Your task to perform on an android device: turn off javascript in the chrome app Image 0: 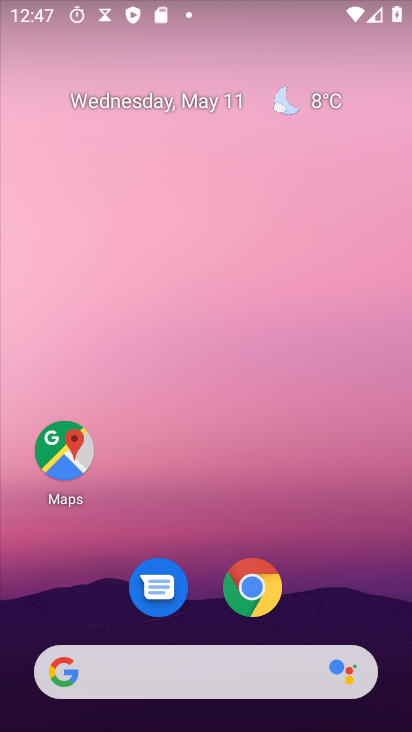
Step 0: drag from (341, 619) to (233, 202)
Your task to perform on an android device: turn off javascript in the chrome app Image 1: 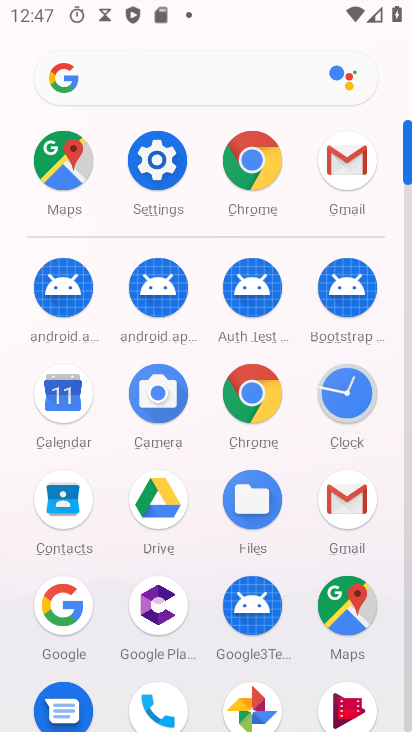
Step 1: click (243, 151)
Your task to perform on an android device: turn off javascript in the chrome app Image 2: 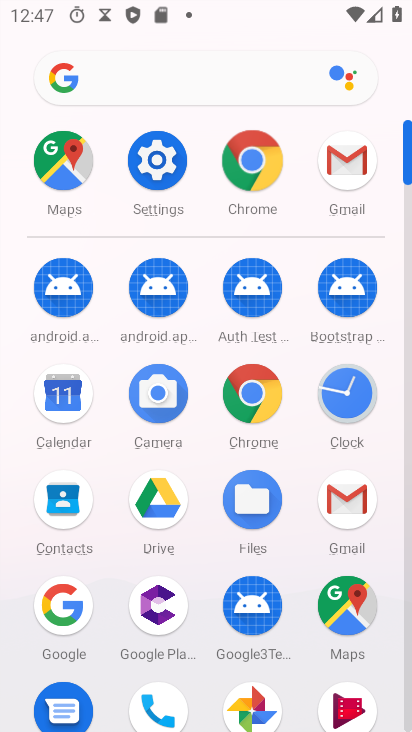
Step 2: click (243, 151)
Your task to perform on an android device: turn off javascript in the chrome app Image 3: 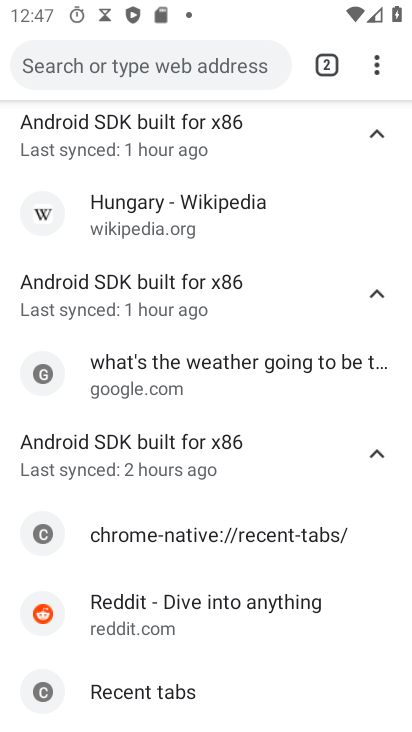
Step 3: drag from (366, 59) to (134, 546)
Your task to perform on an android device: turn off javascript in the chrome app Image 4: 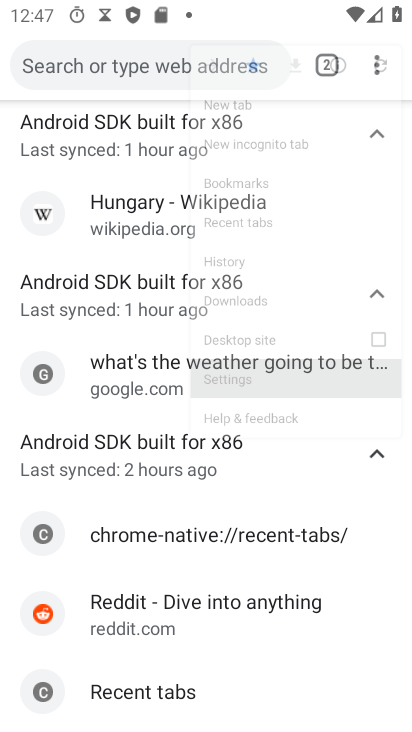
Step 4: click (134, 546)
Your task to perform on an android device: turn off javascript in the chrome app Image 5: 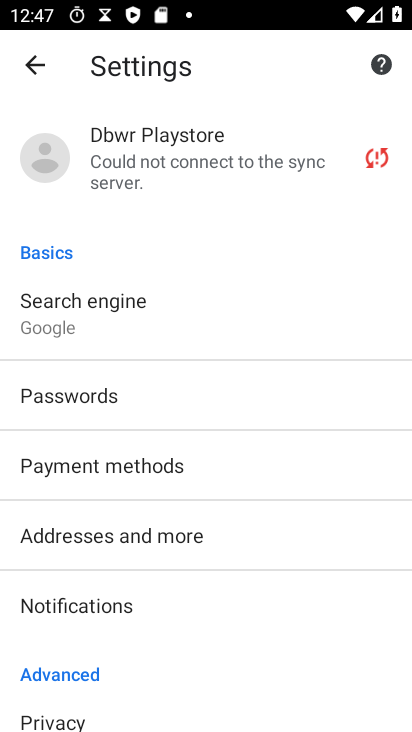
Step 5: drag from (187, 506) to (163, 254)
Your task to perform on an android device: turn off javascript in the chrome app Image 6: 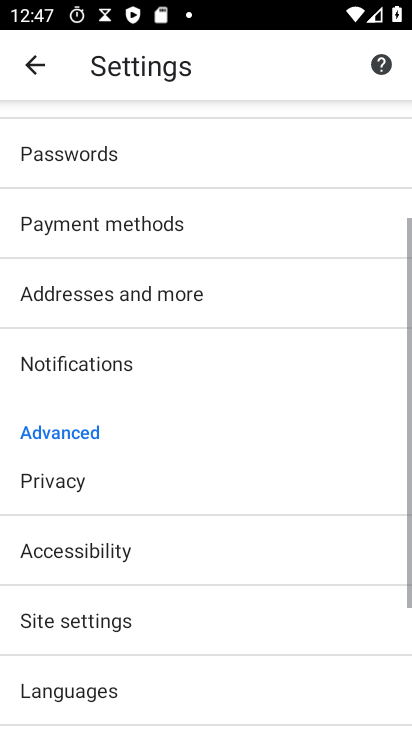
Step 6: drag from (160, 595) to (196, 207)
Your task to perform on an android device: turn off javascript in the chrome app Image 7: 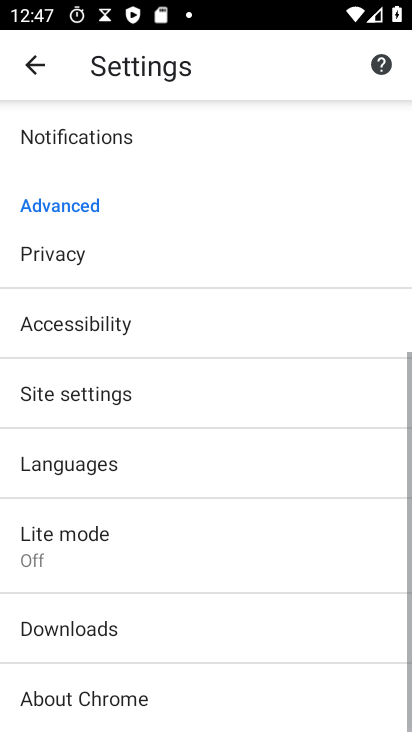
Step 7: drag from (254, 514) to (269, 154)
Your task to perform on an android device: turn off javascript in the chrome app Image 8: 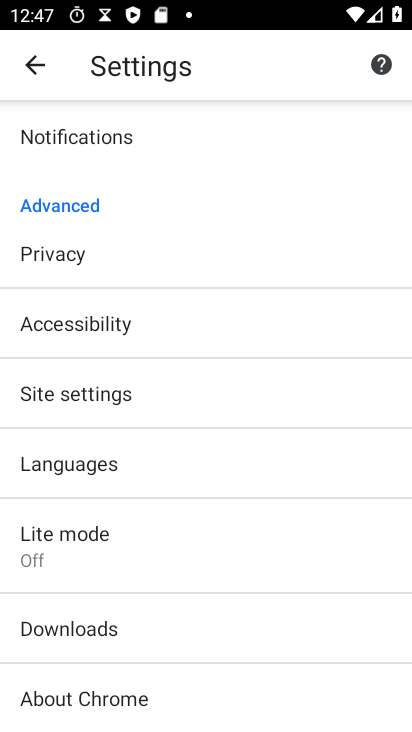
Step 8: click (84, 394)
Your task to perform on an android device: turn off javascript in the chrome app Image 9: 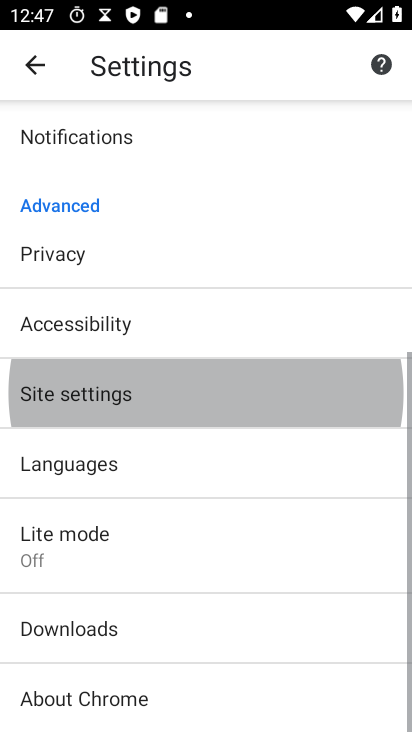
Step 9: click (80, 394)
Your task to perform on an android device: turn off javascript in the chrome app Image 10: 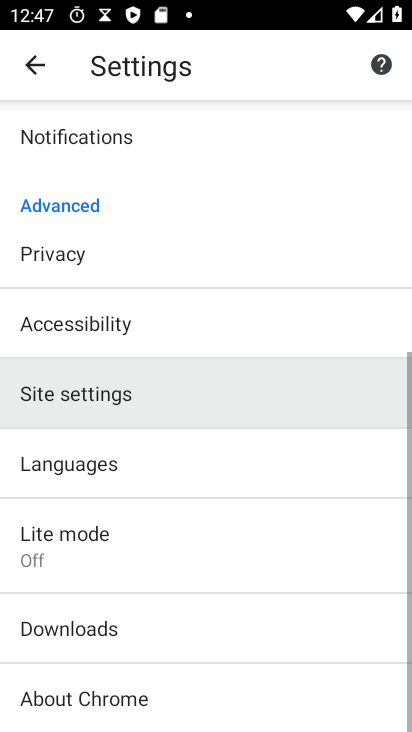
Step 10: click (80, 394)
Your task to perform on an android device: turn off javascript in the chrome app Image 11: 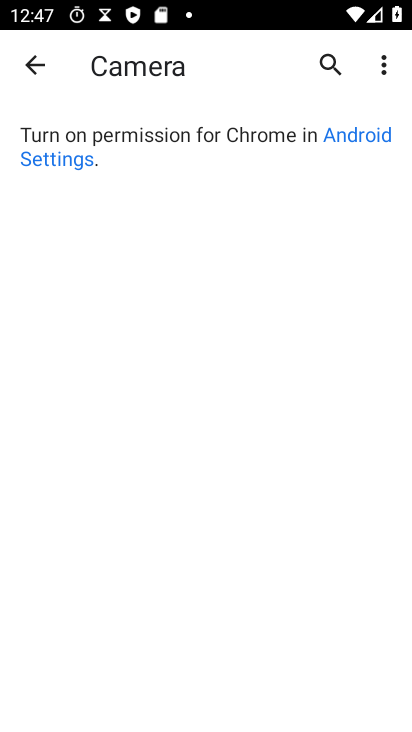
Step 11: click (34, 62)
Your task to perform on an android device: turn off javascript in the chrome app Image 12: 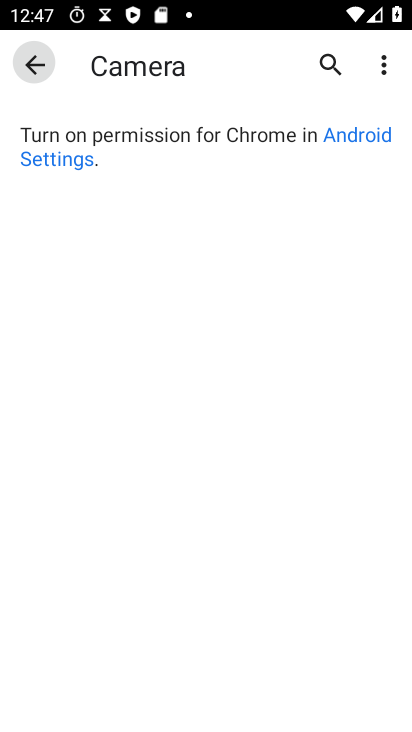
Step 12: click (31, 73)
Your task to perform on an android device: turn off javascript in the chrome app Image 13: 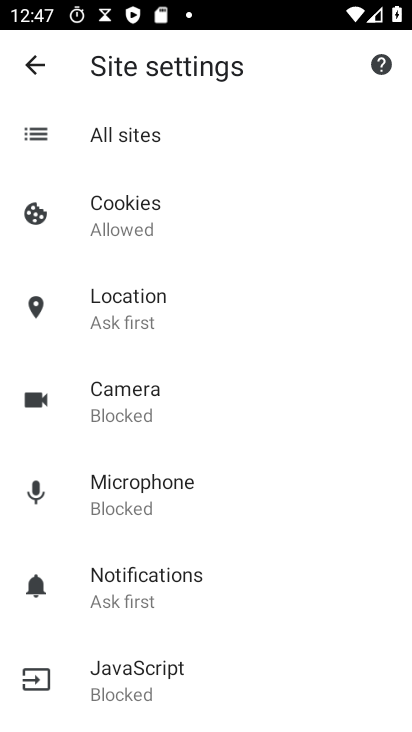
Step 13: click (103, 669)
Your task to perform on an android device: turn off javascript in the chrome app Image 14: 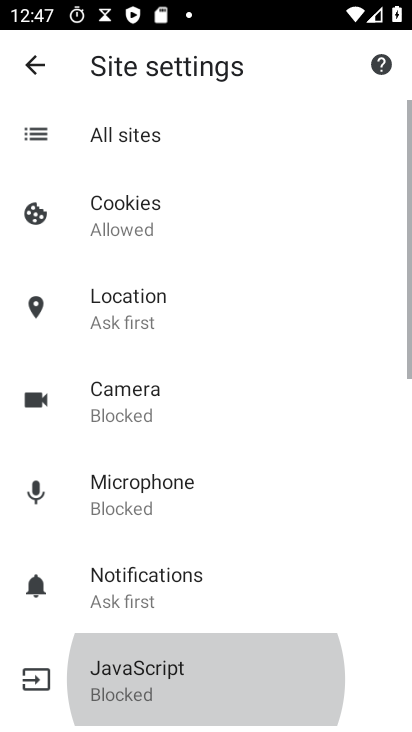
Step 14: click (102, 667)
Your task to perform on an android device: turn off javascript in the chrome app Image 15: 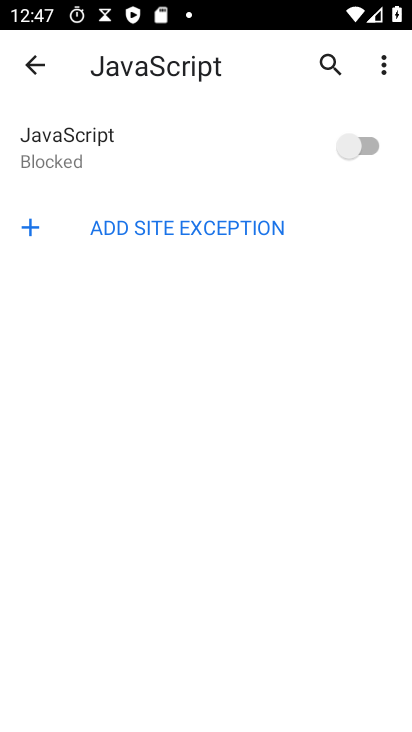
Step 15: task complete